Your task to perform on an android device: open app "McDonald's" (install if not already installed), go to login, and select forgot password Image 0: 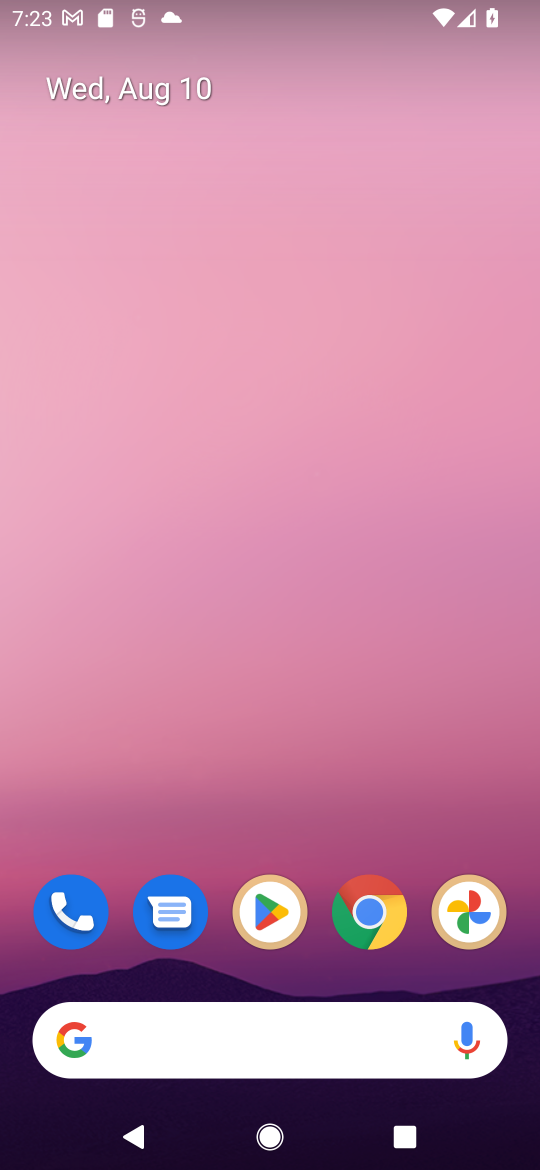
Step 0: drag from (526, 950) to (270, 49)
Your task to perform on an android device: open app "McDonald's" (install if not already installed), go to login, and select forgot password Image 1: 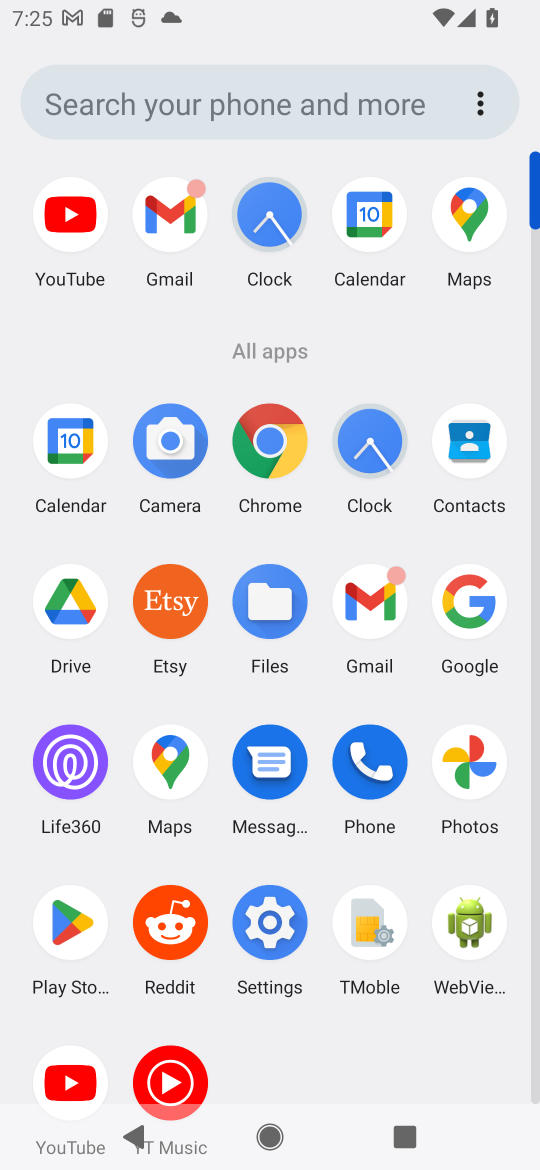
Step 1: click (56, 925)
Your task to perform on an android device: open app "McDonald's" (install if not already installed), go to login, and select forgot password Image 2: 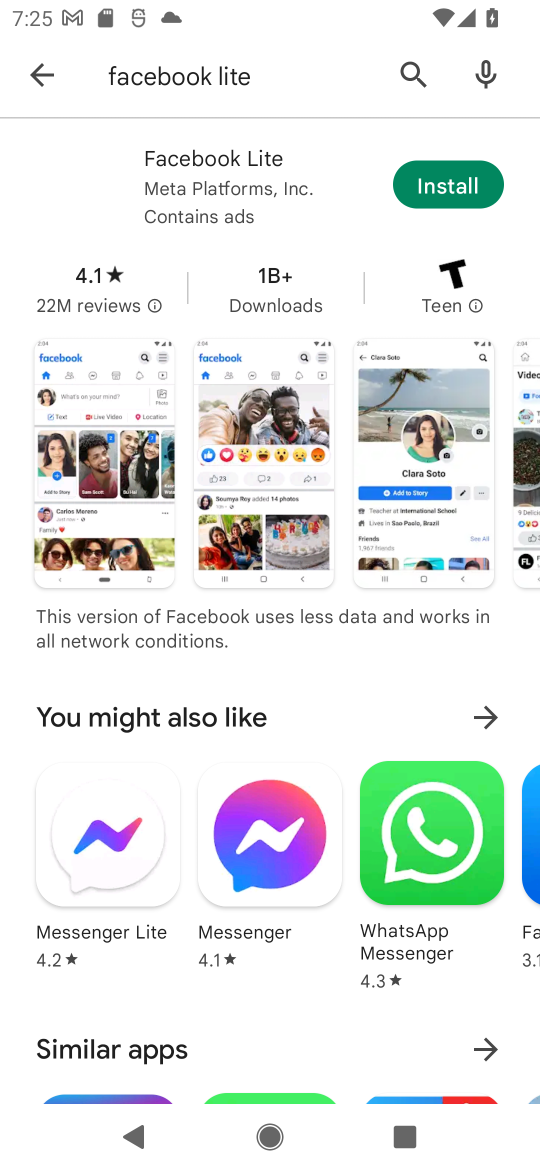
Step 2: press back button
Your task to perform on an android device: open app "McDonald's" (install if not already installed), go to login, and select forgot password Image 3: 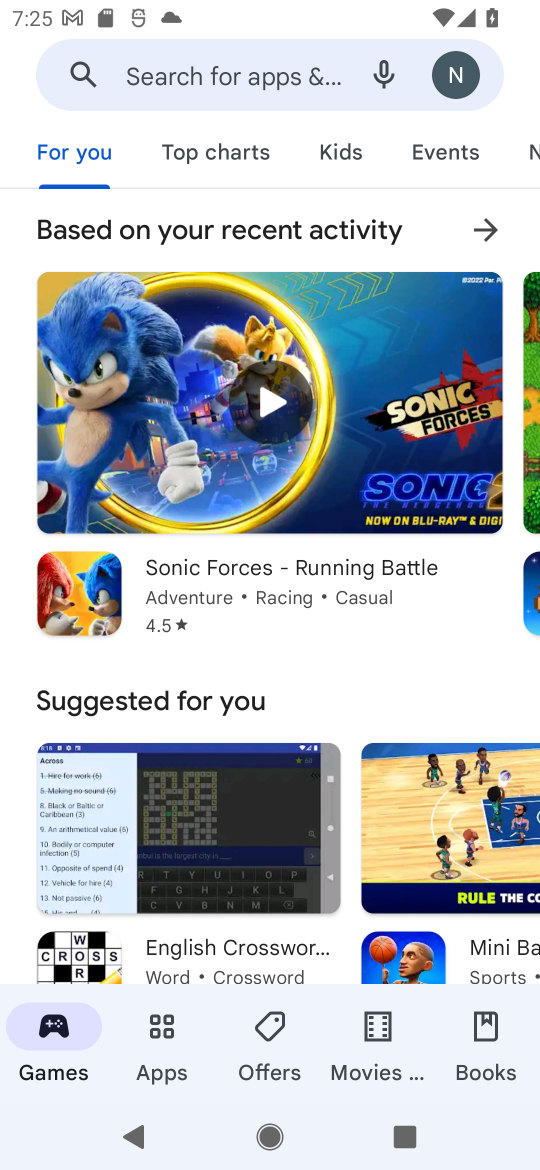
Step 3: click (255, 63)
Your task to perform on an android device: open app "McDonald's" (install if not already installed), go to login, and select forgot password Image 4: 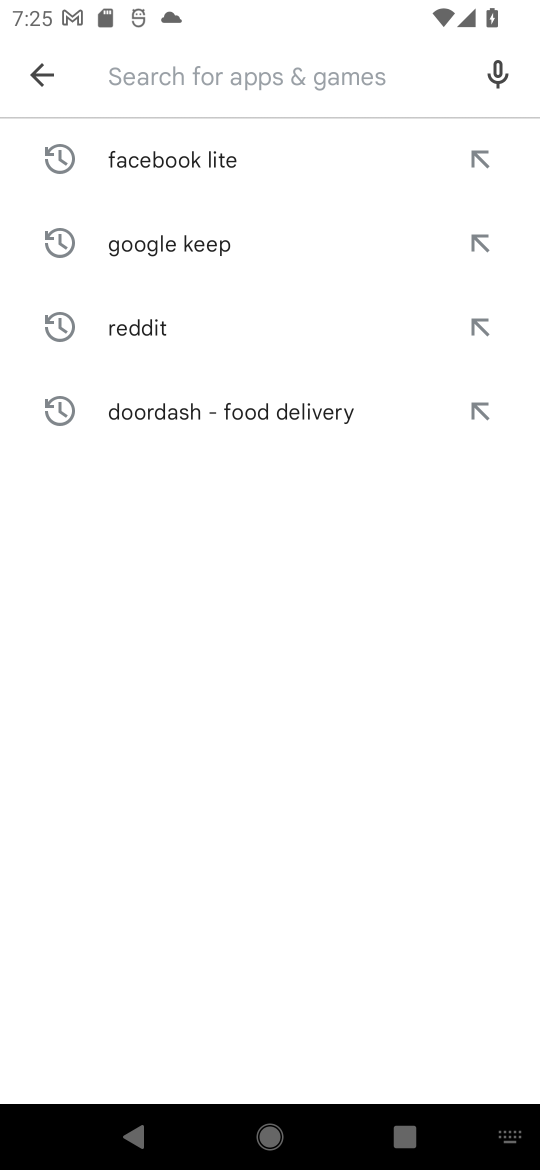
Step 4: type "McDonald's"
Your task to perform on an android device: open app "McDonald's" (install if not already installed), go to login, and select forgot password Image 5: 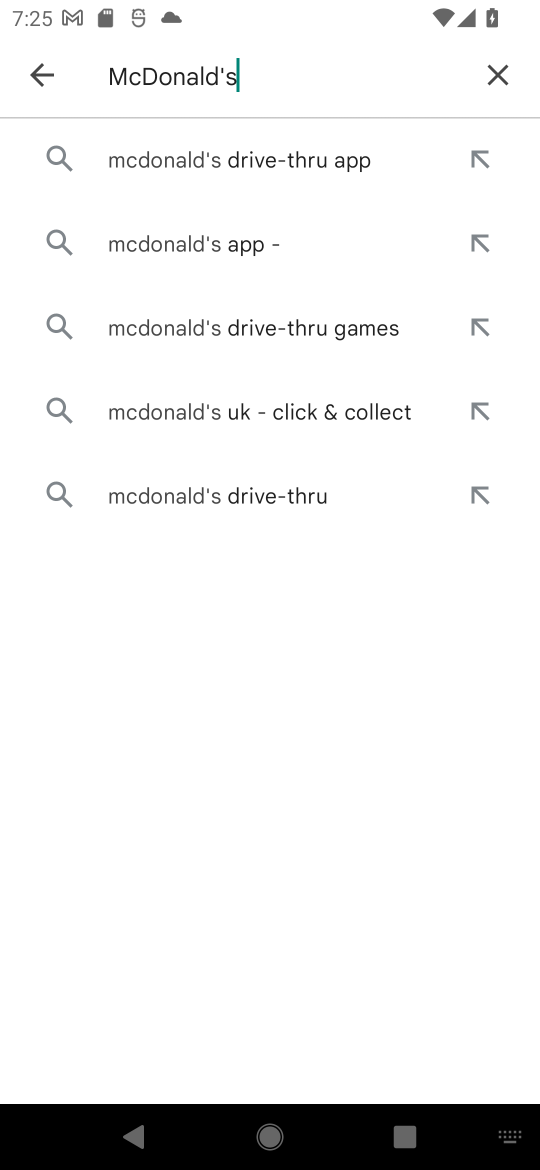
Step 5: click (181, 250)
Your task to perform on an android device: open app "McDonald's" (install if not already installed), go to login, and select forgot password Image 6: 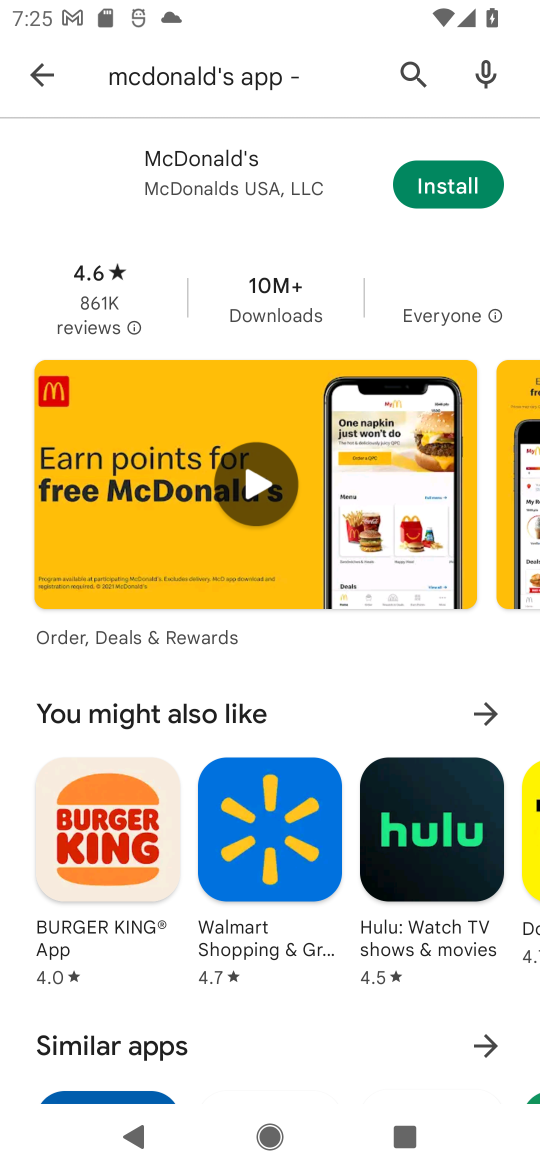
Step 6: task complete